Your task to perform on an android device: turn off location Image 0: 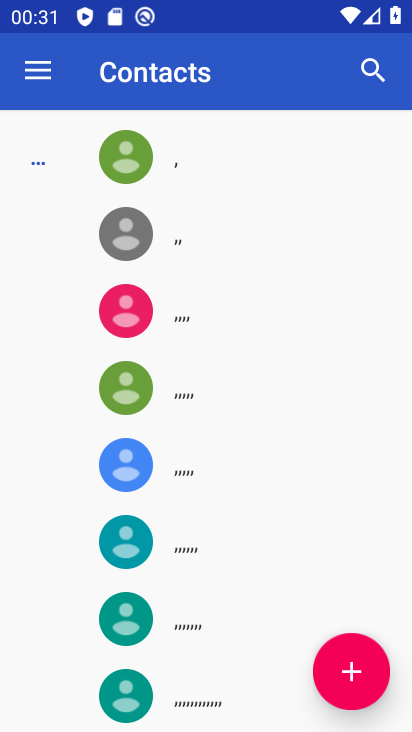
Step 0: press home button
Your task to perform on an android device: turn off location Image 1: 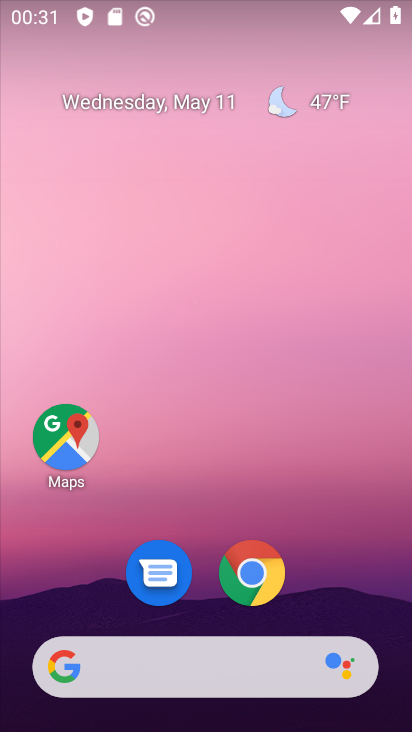
Step 1: drag from (346, 400) to (346, 7)
Your task to perform on an android device: turn off location Image 2: 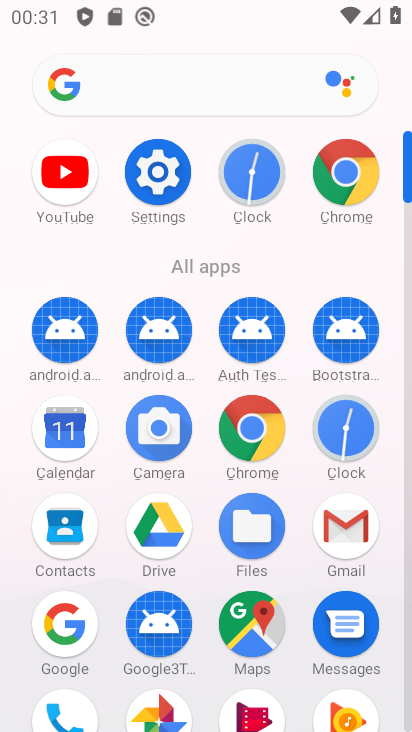
Step 2: click (148, 172)
Your task to perform on an android device: turn off location Image 3: 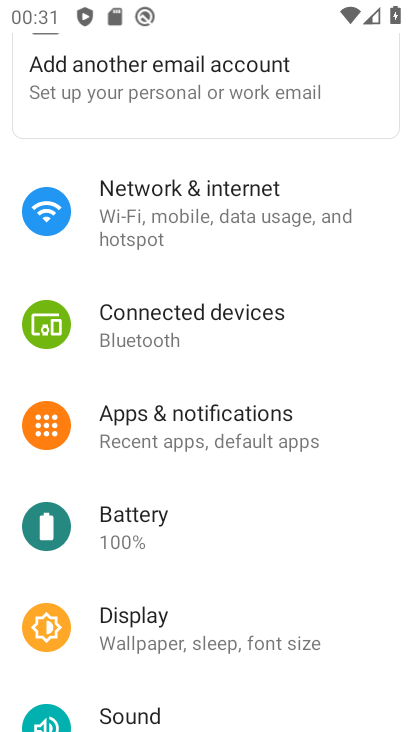
Step 3: drag from (193, 563) to (228, 94)
Your task to perform on an android device: turn off location Image 4: 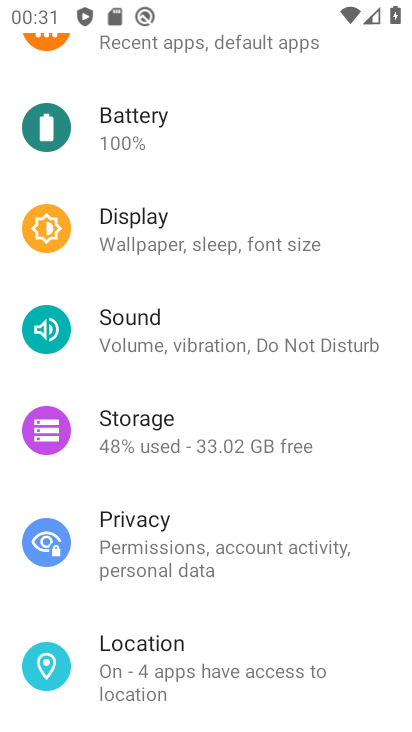
Step 4: drag from (221, 528) to (207, 336)
Your task to perform on an android device: turn off location Image 5: 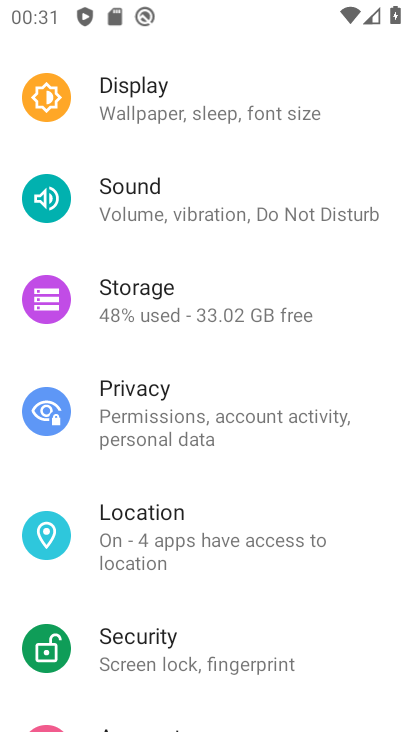
Step 5: click (192, 541)
Your task to perform on an android device: turn off location Image 6: 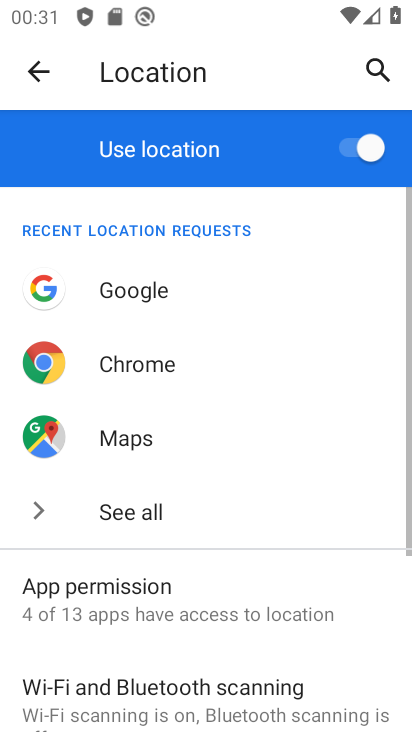
Step 6: click (370, 150)
Your task to perform on an android device: turn off location Image 7: 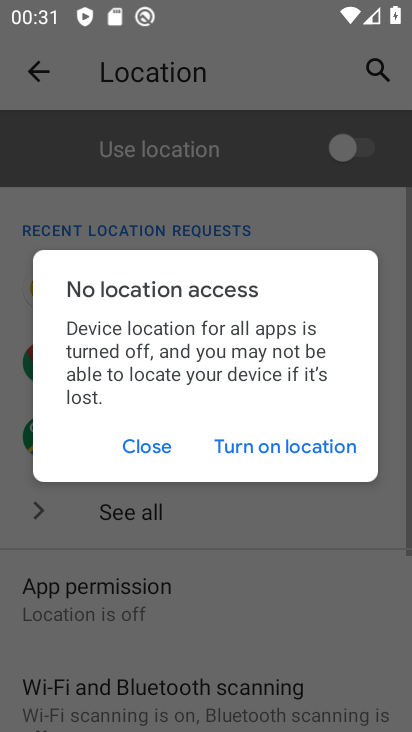
Step 7: task complete